Your task to perform on an android device: Open network settings Image 0: 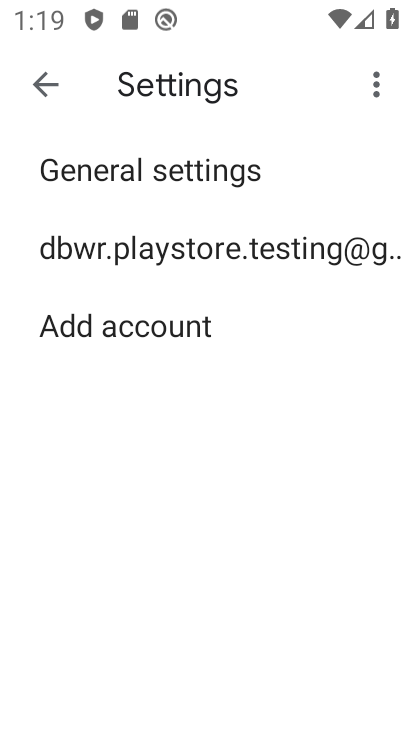
Step 0: press home button
Your task to perform on an android device: Open network settings Image 1: 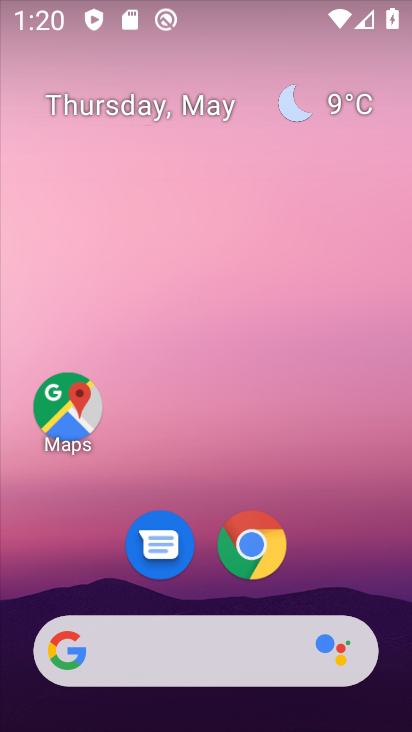
Step 1: drag from (395, 632) to (365, 8)
Your task to perform on an android device: Open network settings Image 2: 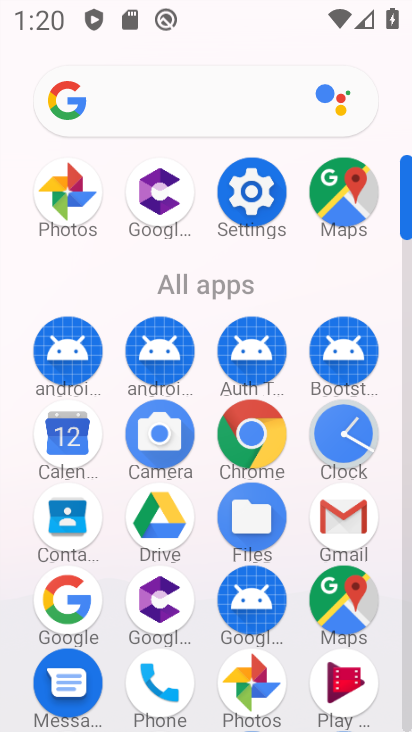
Step 2: click (406, 713)
Your task to perform on an android device: Open network settings Image 3: 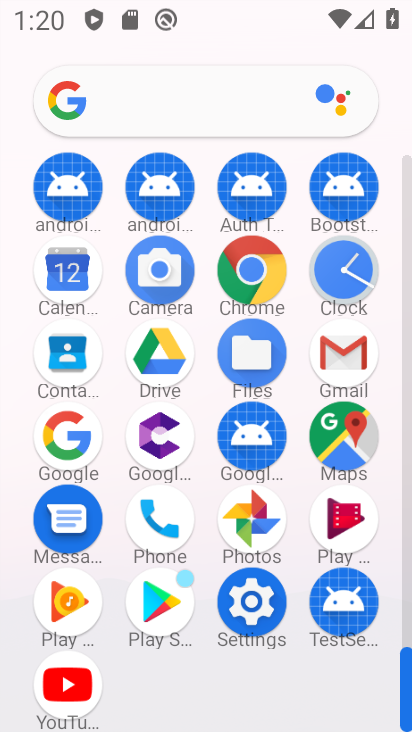
Step 3: click (251, 599)
Your task to perform on an android device: Open network settings Image 4: 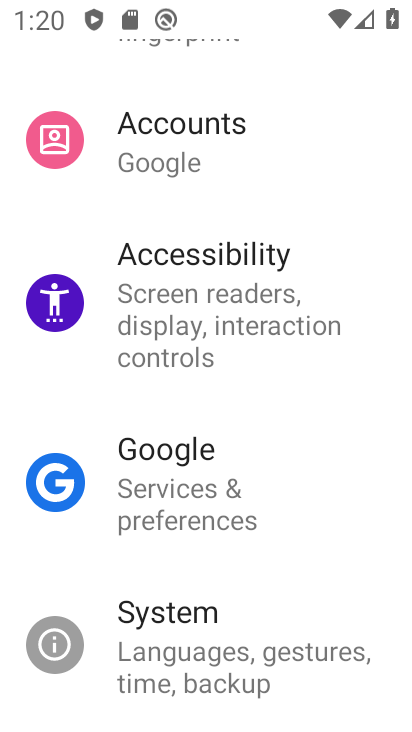
Step 4: drag from (360, 162) to (344, 500)
Your task to perform on an android device: Open network settings Image 5: 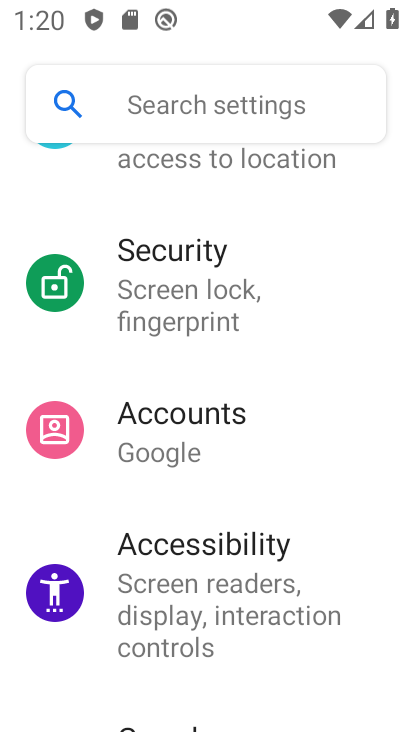
Step 5: drag from (337, 209) to (311, 565)
Your task to perform on an android device: Open network settings Image 6: 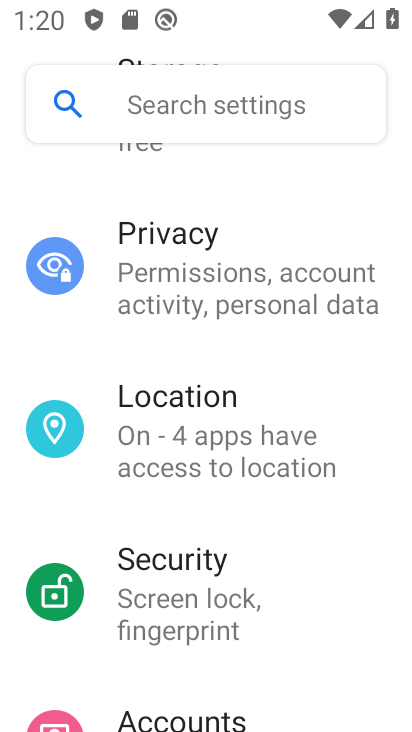
Step 6: drag from (339, 197) to (292, 606)
Your task to perform on an android device: Open network settings Image 7: 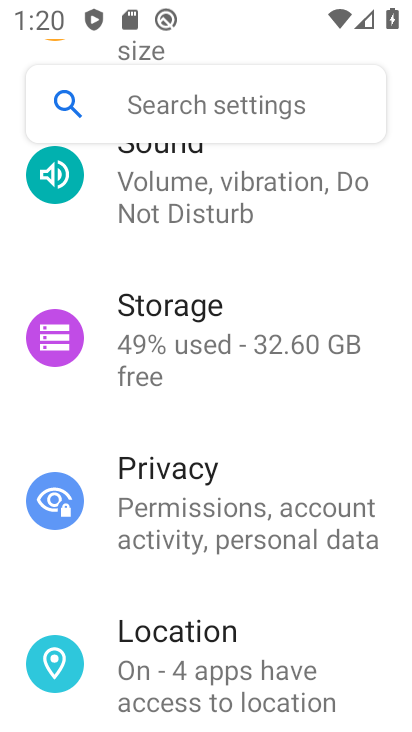
Step 7: drag from (325, 315) to (330, 609)
Your task to perform on an android device: Open network settings Image 8: 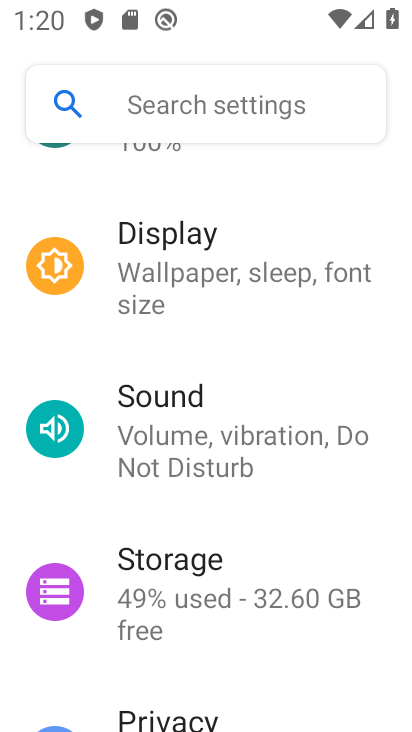
Step 8: drag from (358, 173) to (329, 536)
Your task to perform on an android device: Open network settings Image 9: 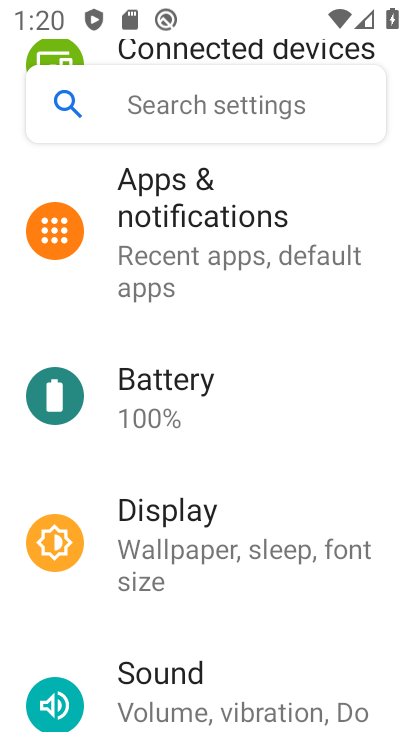
Step 9: drag from (351, 219) to (326, 658)
Your task to perform on an android device: Open network settings Image 10: 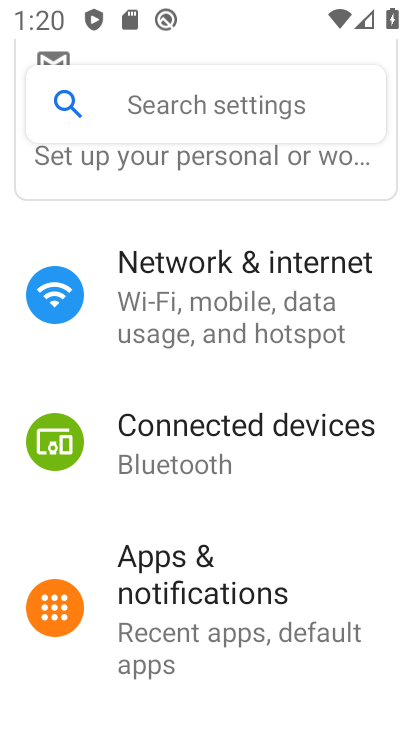
Step 10: click (169, 270)
Your task to perform on an android device: Open network settings Image 11: 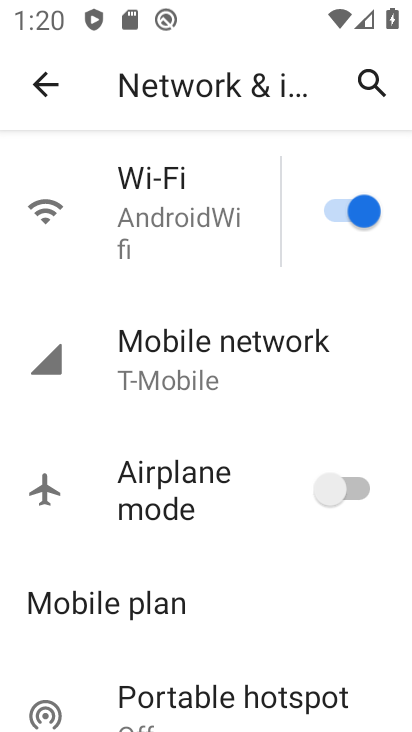
Step 11: drag from (294, 660) to (305, 83)
Your task to perform on an android device: Open network settings Image 12: 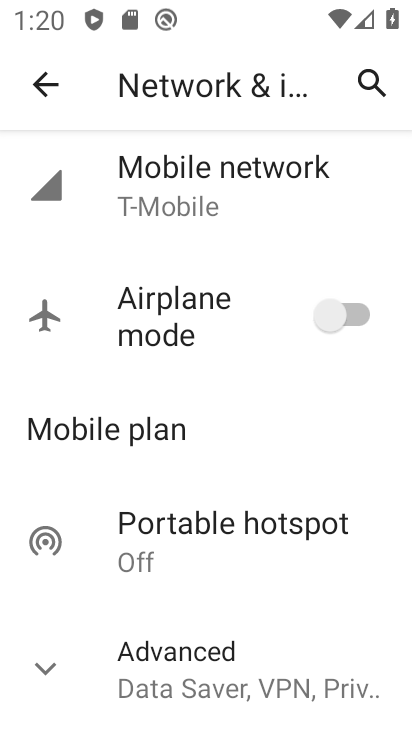
Step 12: click (47, 665)
Your task to perform on an android device: Open network settings Image 13: 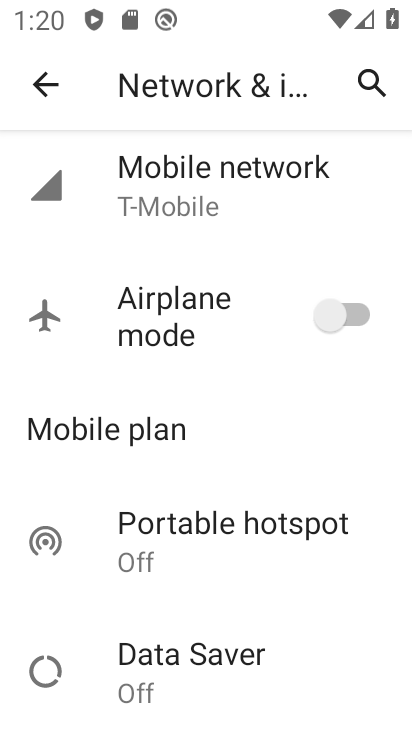
Step 13: task complete